Your task to perform on an android device: Turn on the flashlight Image 0: 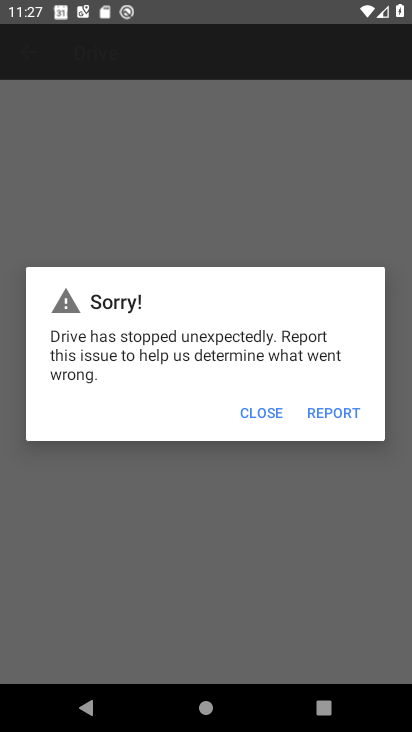
Step 0: press home button
Your task to perform on an android device: Turn on the flashlight Image 1: 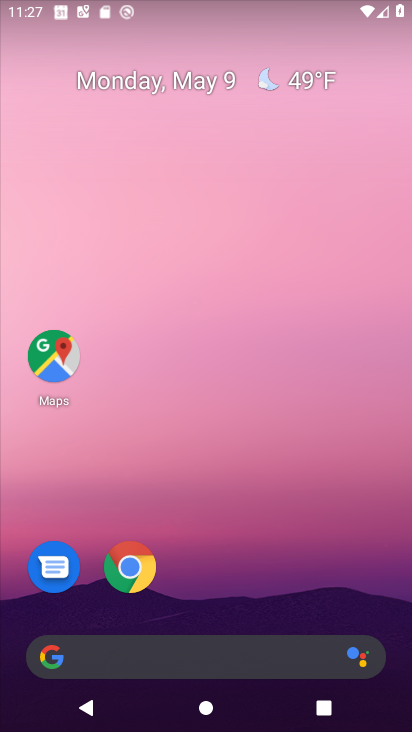
Step 1: drag from (266, 1) to (168, 495)
Your task to perform on an android device: Turn on the flashlight Image 2: 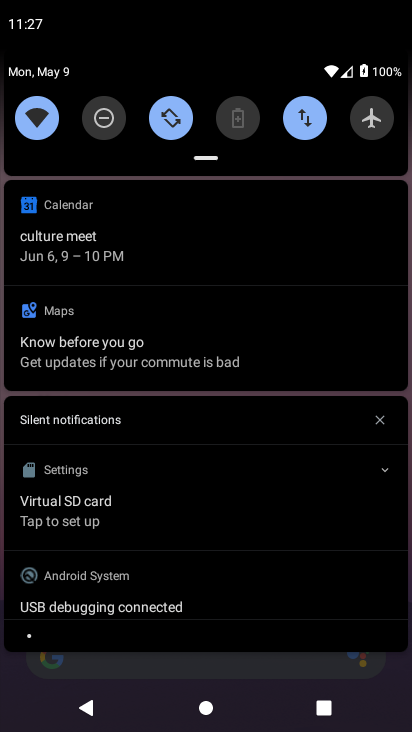
Step 2: drag from (195, 138) to (185, 431)
Your task to perform on an android device: Turn on the flashlight Image 3: 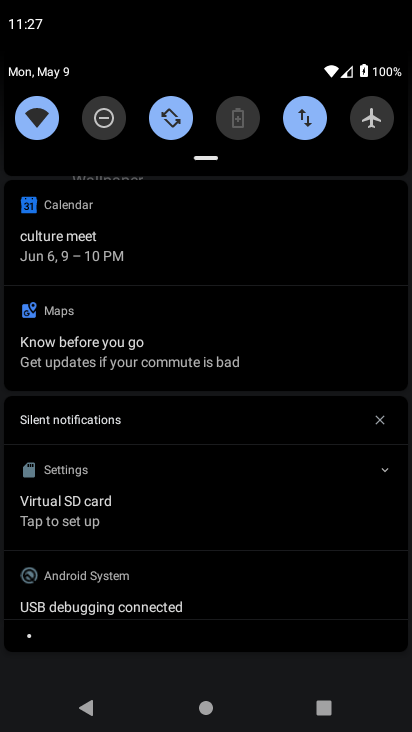
Step 3: drag from (223, 146) to (157, 512)
Your task to perform on an android device: Turn on the flashlight Image 4: 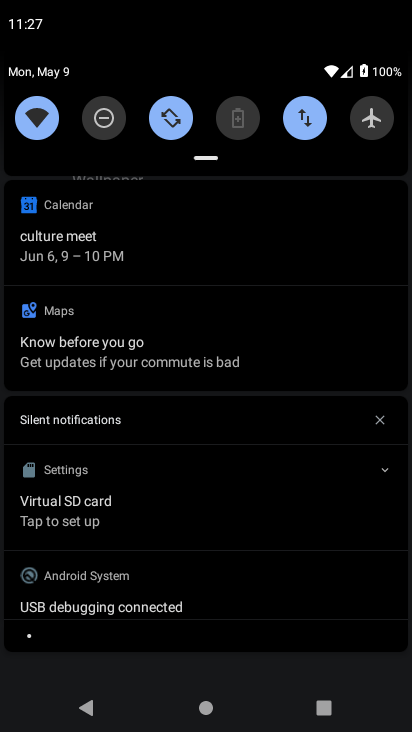
Step 4: drag from (218, 56) to (183, 400)
Your task to perform on an android device: Turn on the flashlight Image 5: 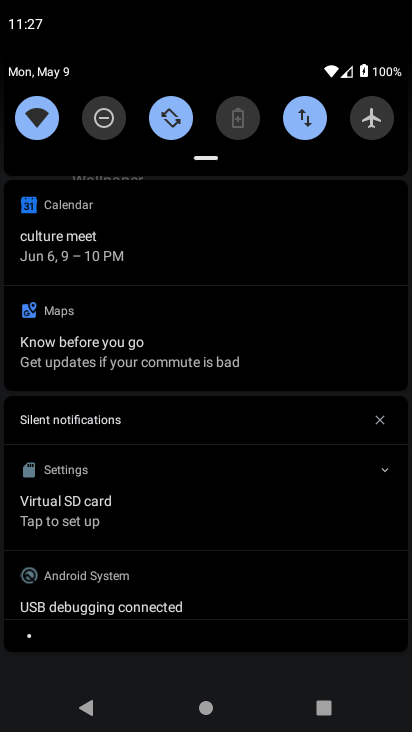
Step 5: drag from (183, 94) to (149, 418)
Your task to perform on an android device: Turn on the flashlight Image 6: 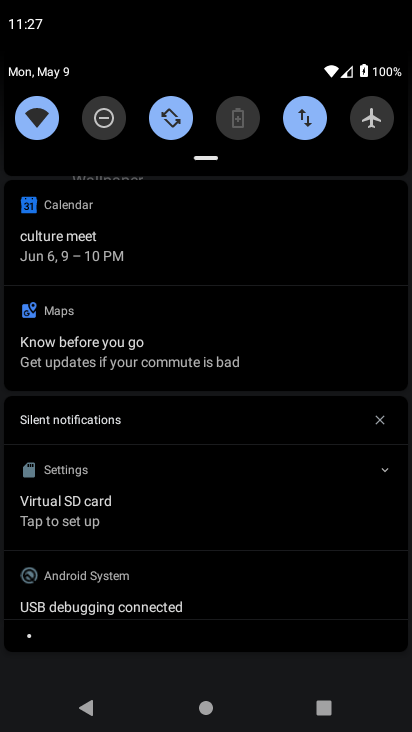
Step 6: drag from (202, 89) to (187, 500)
Your task to perform on an android device: Turn on the flashlight Image 7: 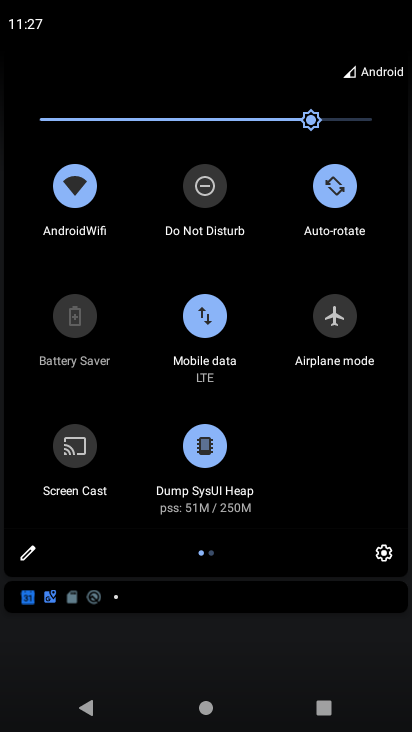
Step 7: drag from (350, 445) to (11, 469)
Your task to perform on an android device: Turn on the flashlight Image 8: 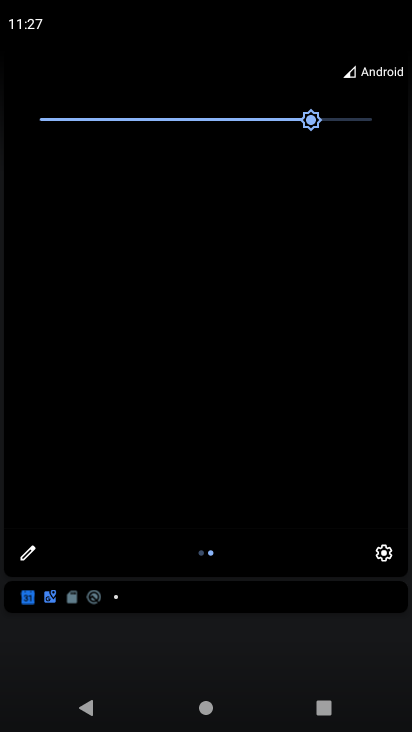
Step 8: click (22, 550)
Your task to perform on an android device: Turn on the flashlight Image 9: 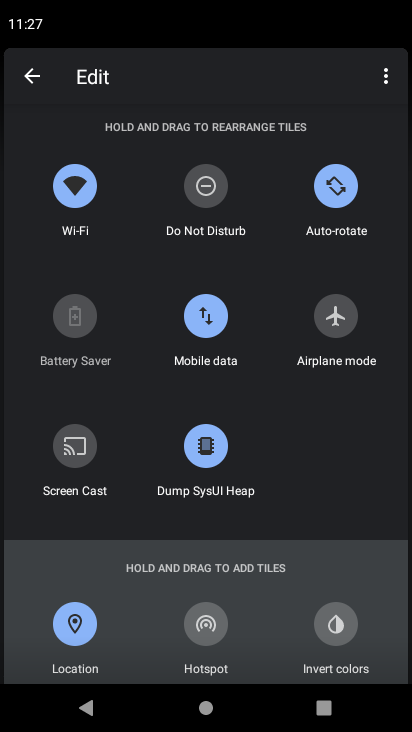
Step 9: task complete